Your task to perform on an android device: Go to Google Image 0: 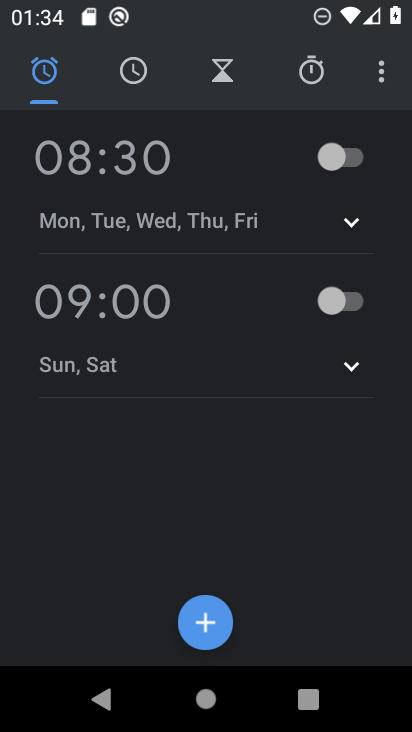
Step 0: press home button
Your task to perform on an android device: Go to Google Image 1: 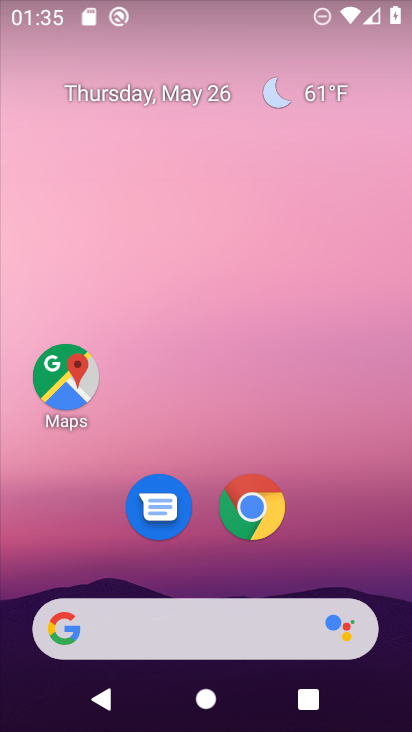
Step 1: click (236, 625)
Your task to perform on an android device: Go to Google Image 2: 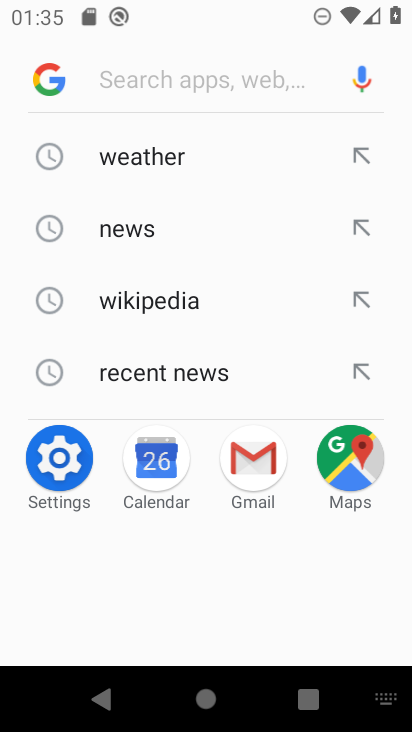
Step 2: type "googl.ecom"
Your task to perform on an android device: Go to Google Image 3: 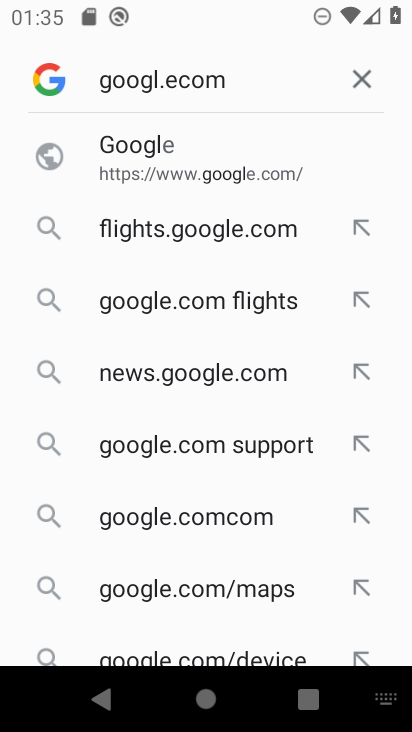
Step 3: click (221, 175)
Your task to perform on an android device: Go to Google Image 4: 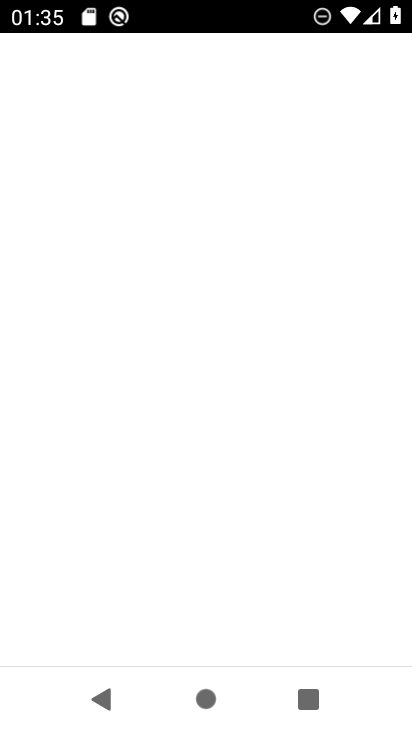
Step 4: task complete